Your task to perform on an android device: Open Google Chrome Image 0: 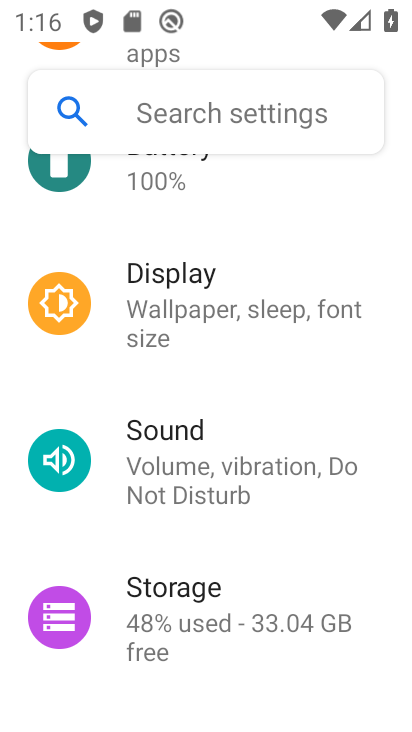
Step 0: press back button
Your task to perform on an android device: Open Google Chrome Image 1: 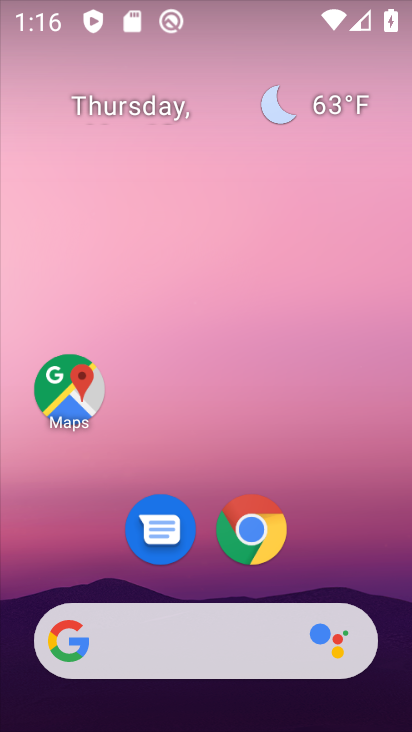
Step 1: click (250, 526)
Your task to perform on an android device: Open Google Chrome Image 2: 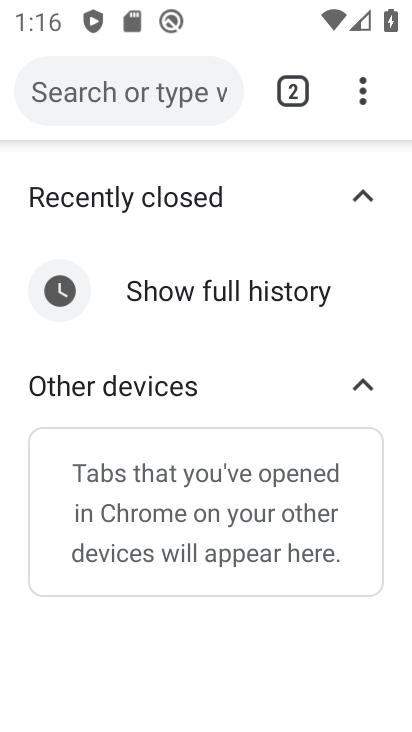
Step 2: task complete